Your task to perform on an android device: Open ESPN.com Image 0: 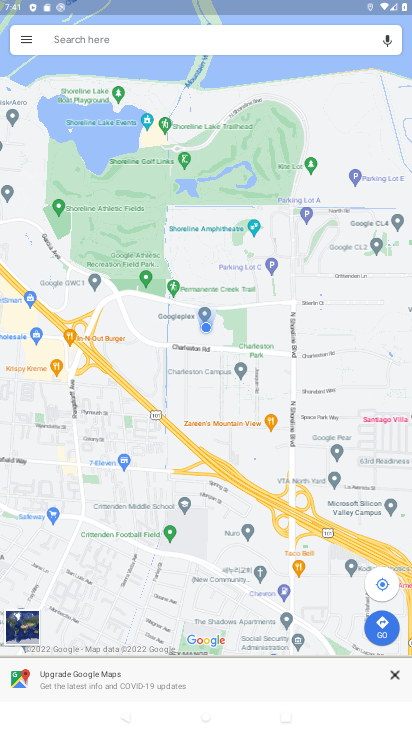
Step 0: press home button
Your task to perform on an android device: Open ESPN.com Image 1: 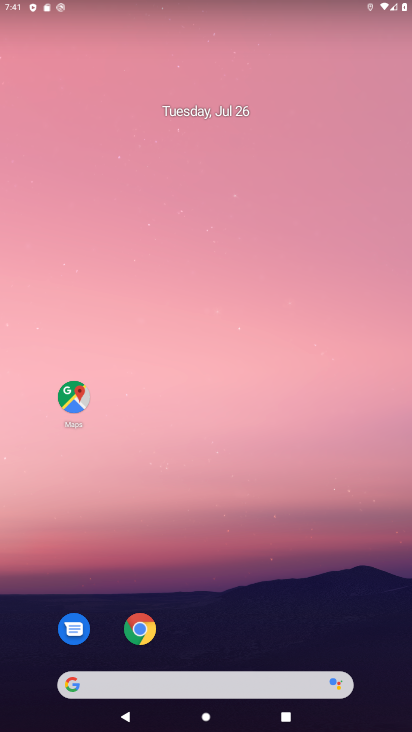
Step 1: drag from (302, 685) to (115, 5)
Your task to perform on an android device: Open ESPN.com Image 2: 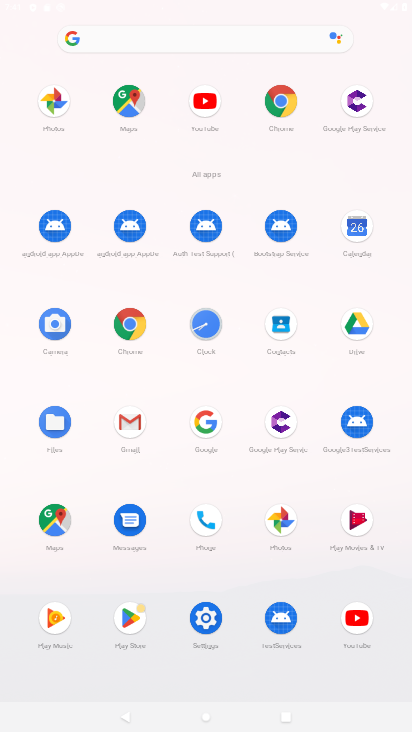
Step 2: click (285, 91)
Your task to perform on an android device: Open ESPN.com Image 3: 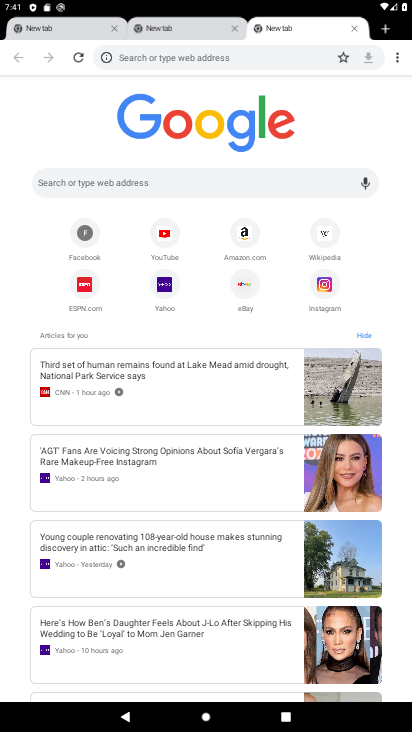
Step 3: click (223, 172)
Your task to perform on an android device: Open ESPN.com Image 4: 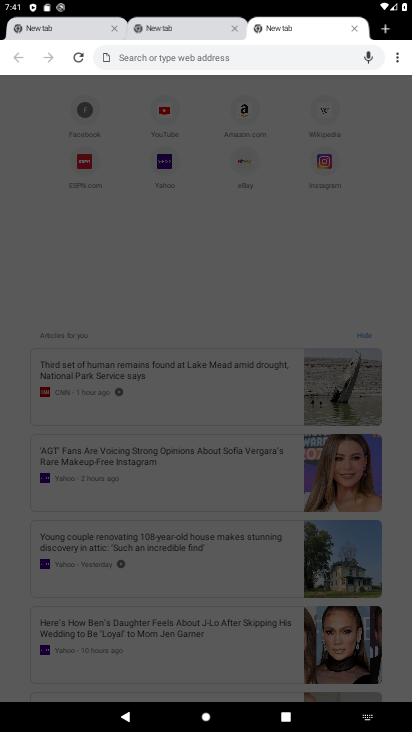
Step 4: type "espn.com"
Your task to perform on an android device: Open ESPN.com Image 5: 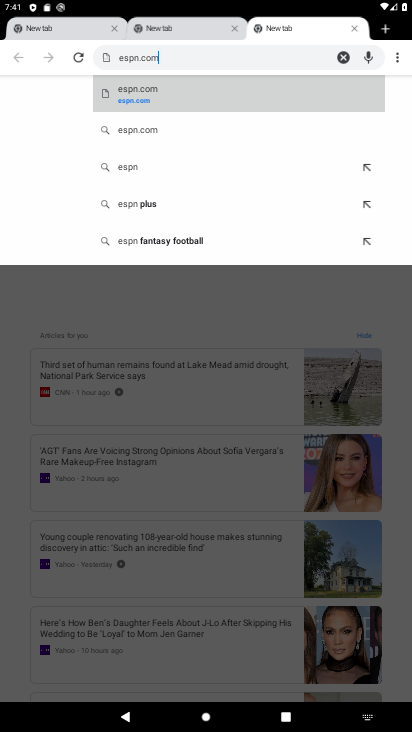
Step 5: type ""
Your task to perform on an android device: Open ESPN.com Image 6: 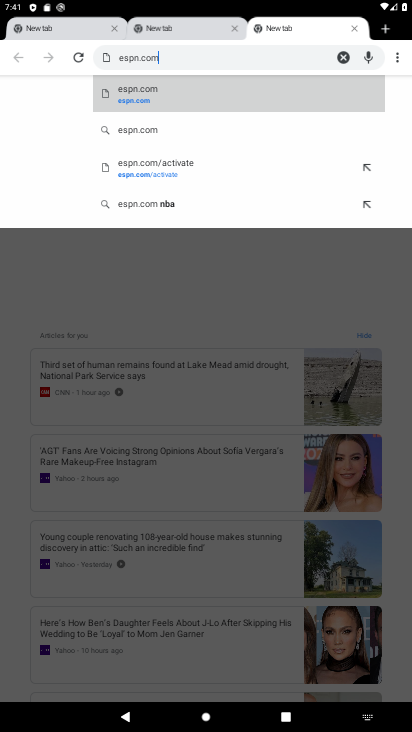
Step 6: click (207, 104)
Your task to perform on an android device: Open ESPN.com Image 7: 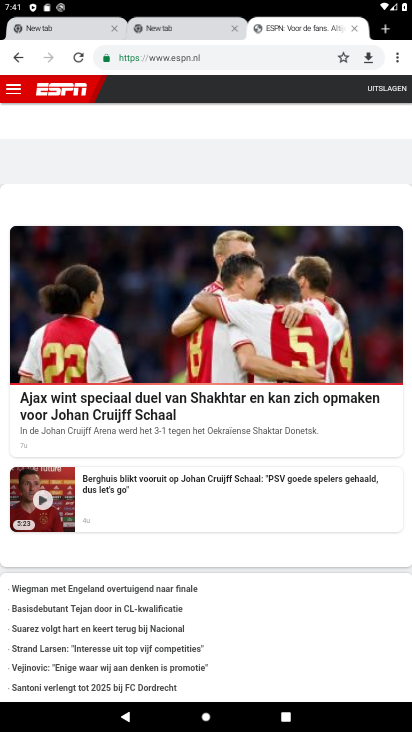
Step 7: task complete